Your task to perform on an android device: Search for a new desk on IKEA Image 0: 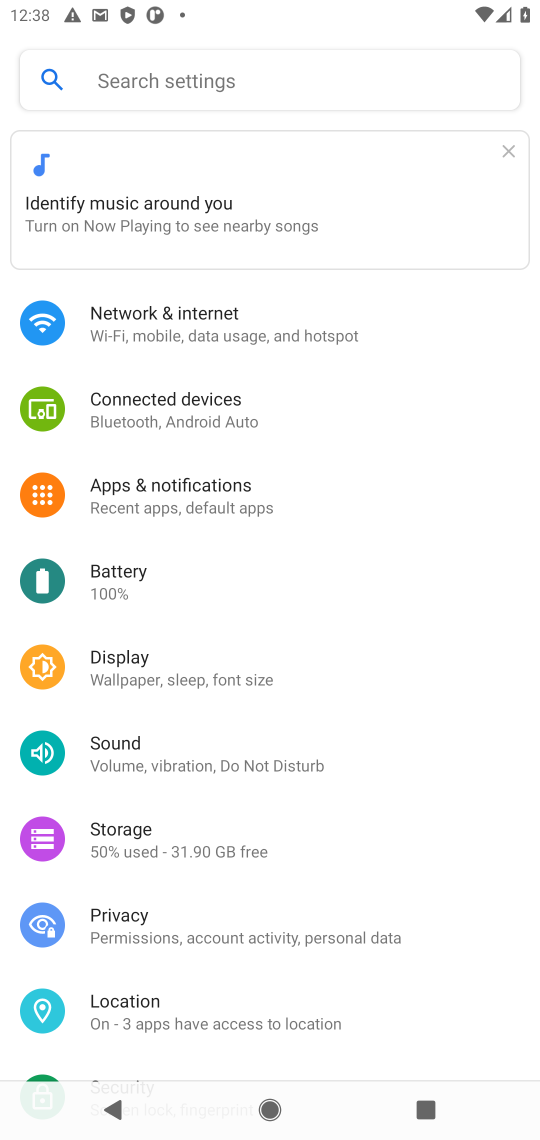
Step 0: press home button
Your task to perform on an android device: Search for a new desk on IKEA Image 1: 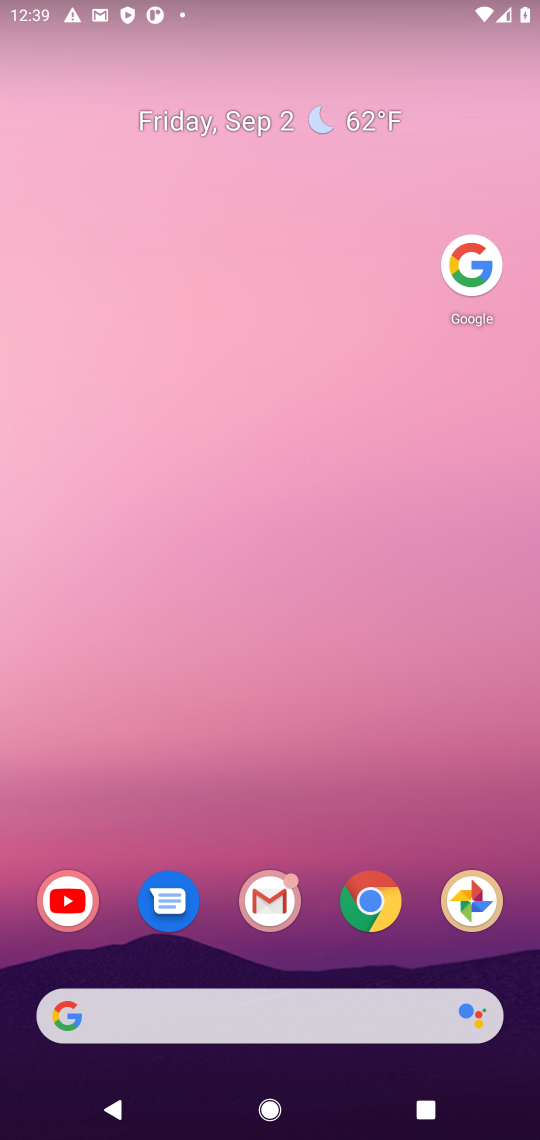
Step 1: drag from (301, 928) to (324, 289)
Your task to perform on an android device: Search for a new desk on IKEA Image 2: 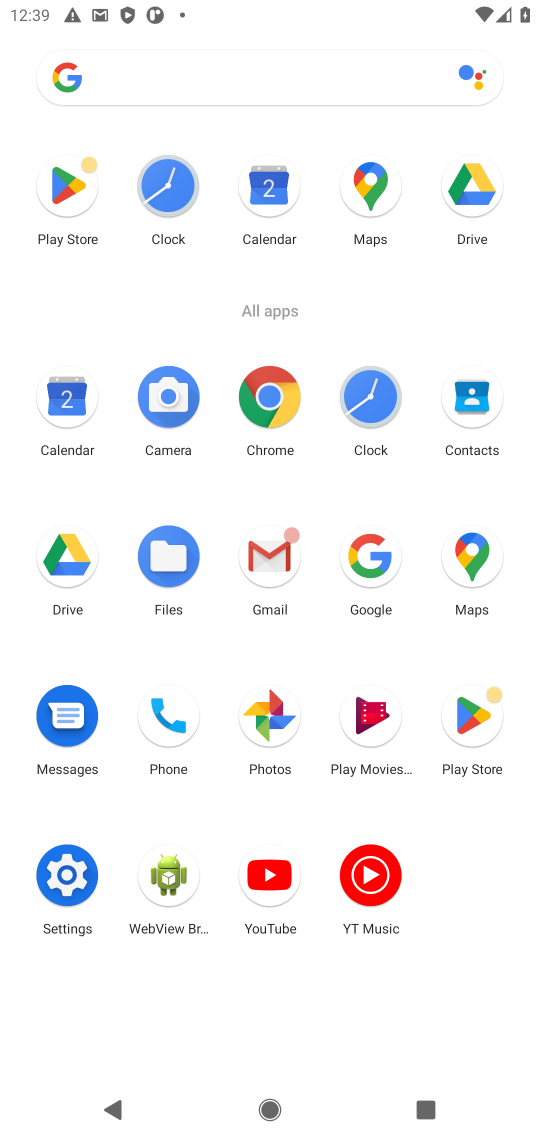
Step 2: click (364, 545)
Your task to perform on an android device: Search for a new desk on IKEA Image 3: 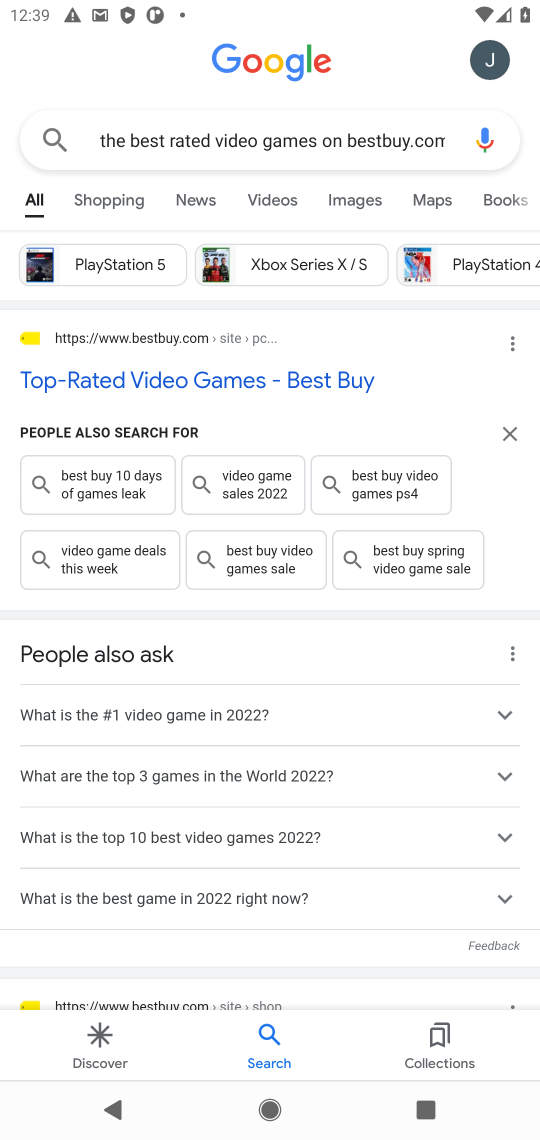
Step 3: click (338, 148)
Your task to perform on an android device: Search for a new desk on IKEA Image 4: 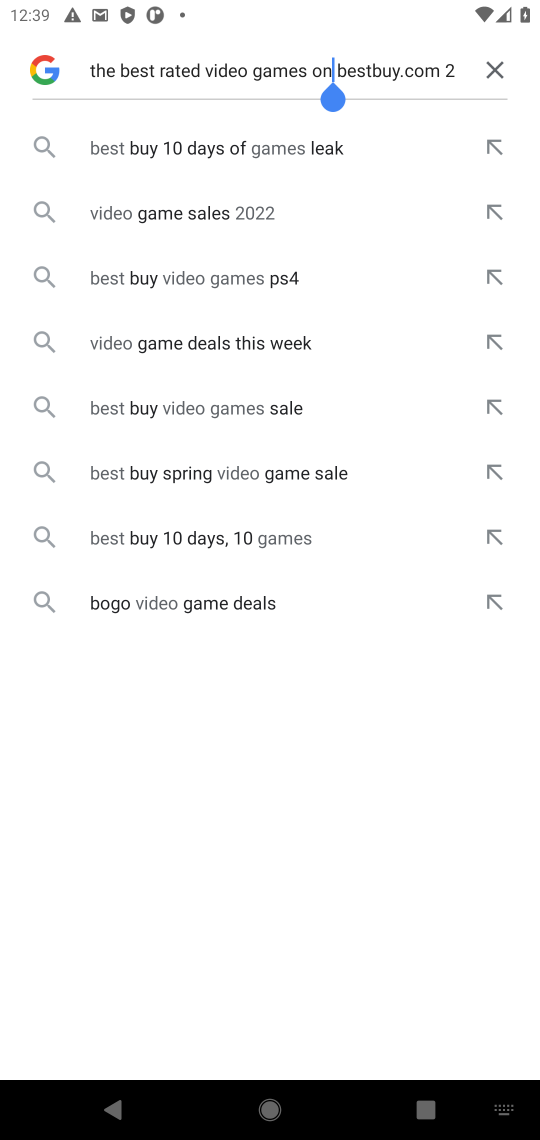
Step 4: click (497, 61)
Your task to perform on an android device: Search for a new desk on IKEA Image 5: 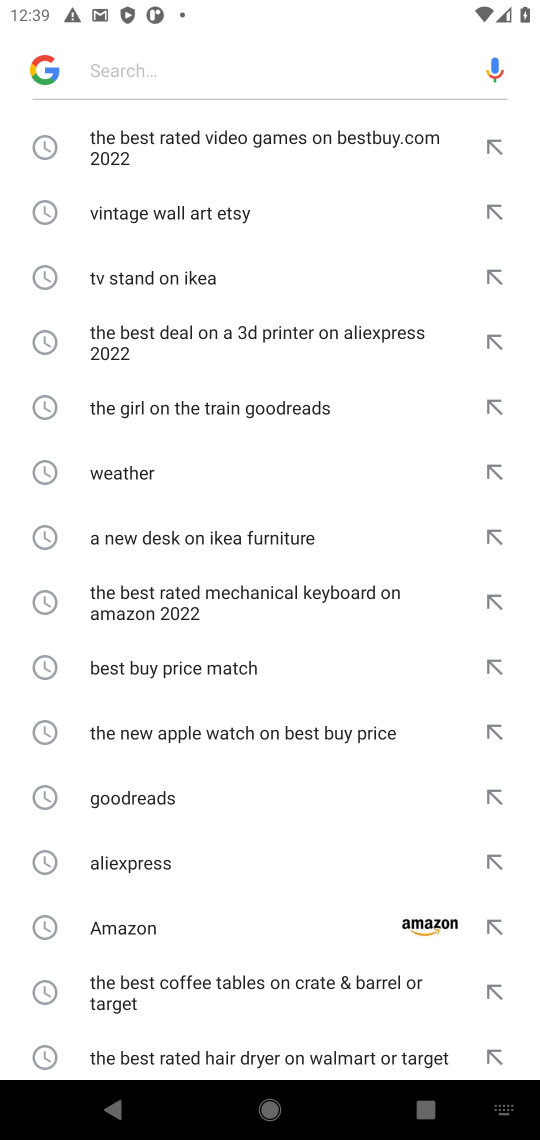
Step 5: click (219, 71)
Your task to perform on an android device: Search for a new desk on IKEA Image 6: 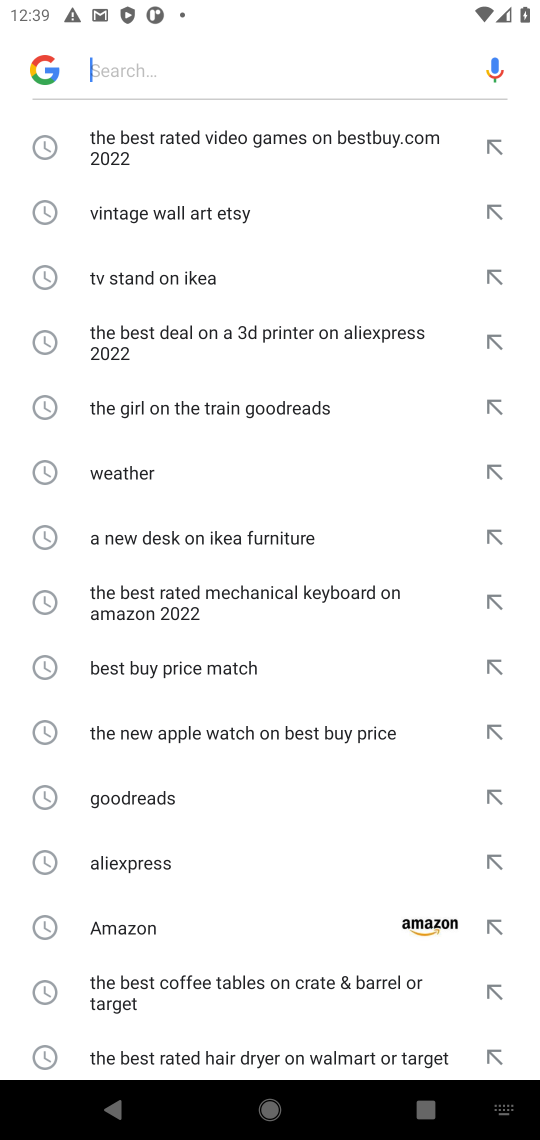
Step 6: type " a new desk on IKEA "
Your task to perform on an android device: Search for a new desk on IKEA Image 7: 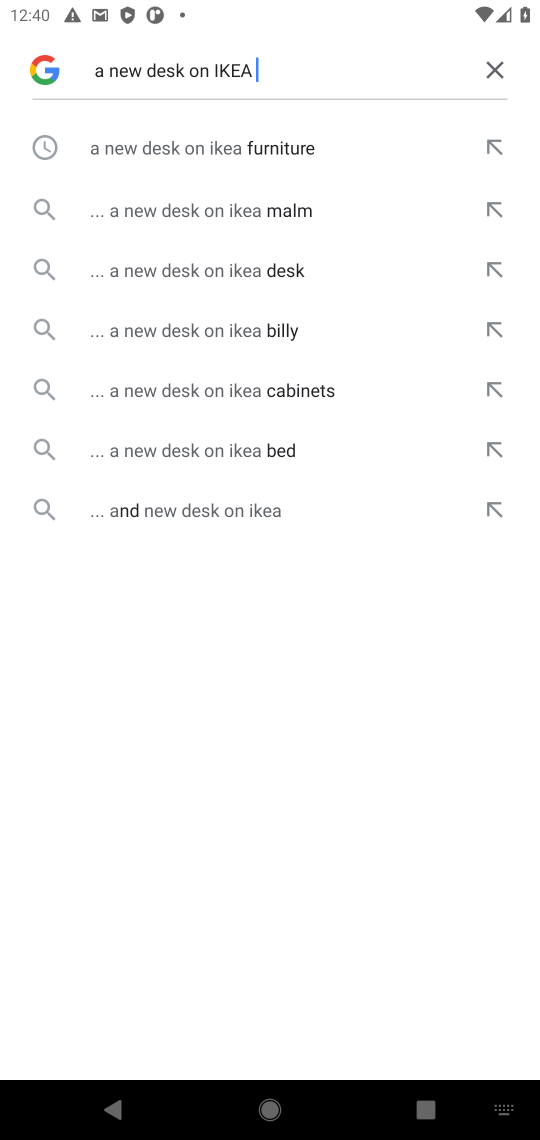
Step 7: click (238, 129)
Your task to perform on an android device: Search for a new desk on IKEA Image 8: 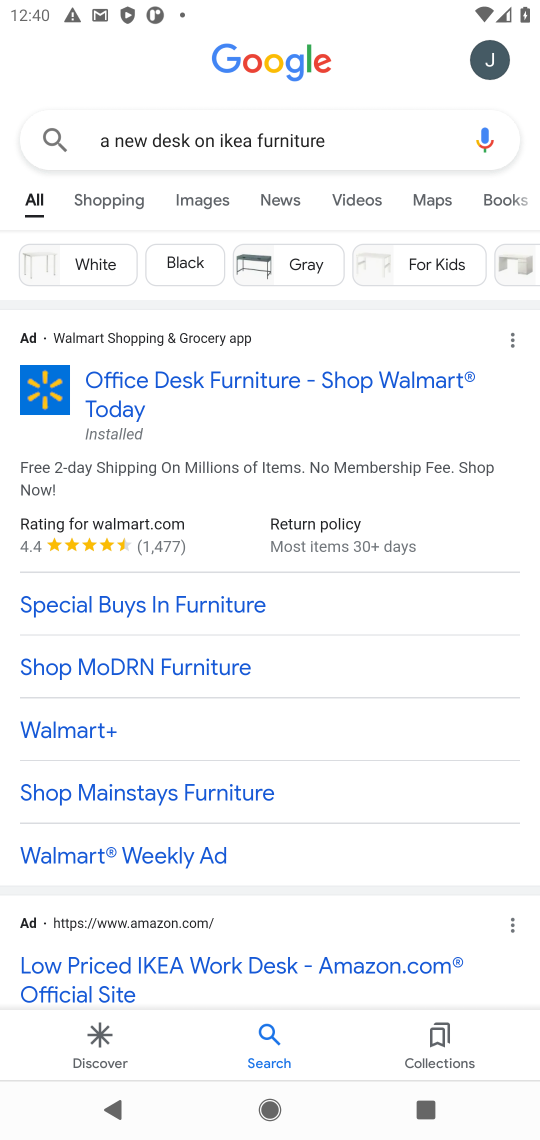
Step 8: drag from (255, 965) to (380, 446)
Your task to perform on an android device: Search for a new desk on IKEA Image 9: 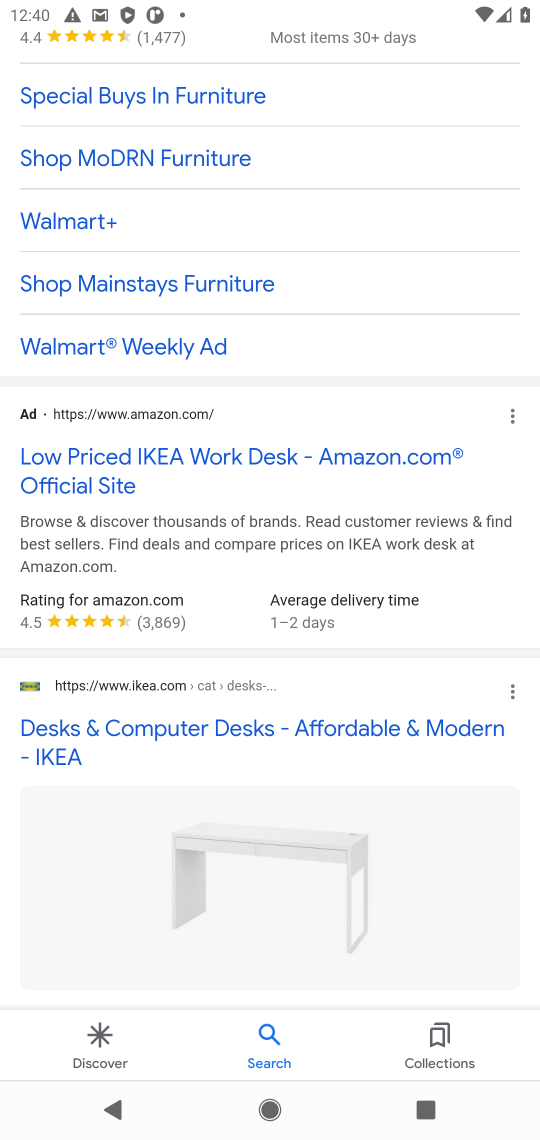
Step 9: click (183, 733)
Your task to perform on an android device: Search for a new desk on IKEA Image 10: 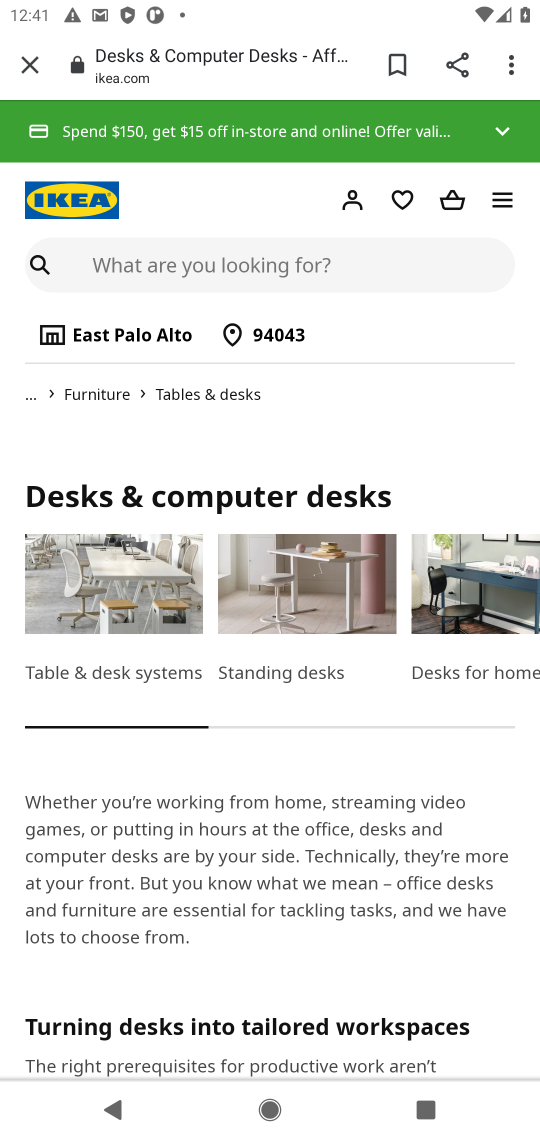
Step 10: task complete